Your task to perform on an android device: Open Yahoo.com Image 0: 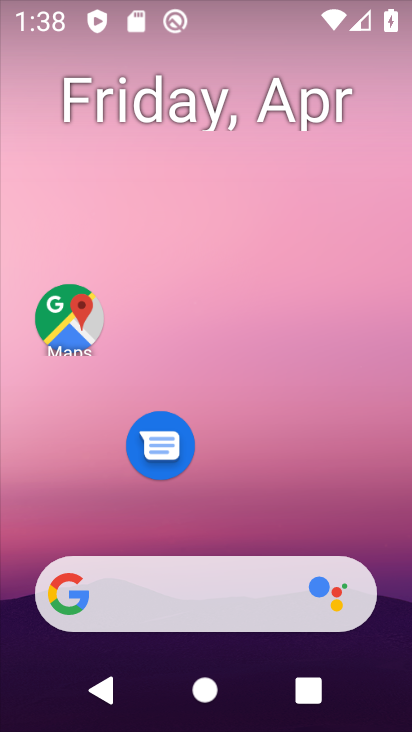
Step 0: drag from (258, 522) to (249, 103)
Your task to perform on an android device: Open Yahoo.com Image 1: 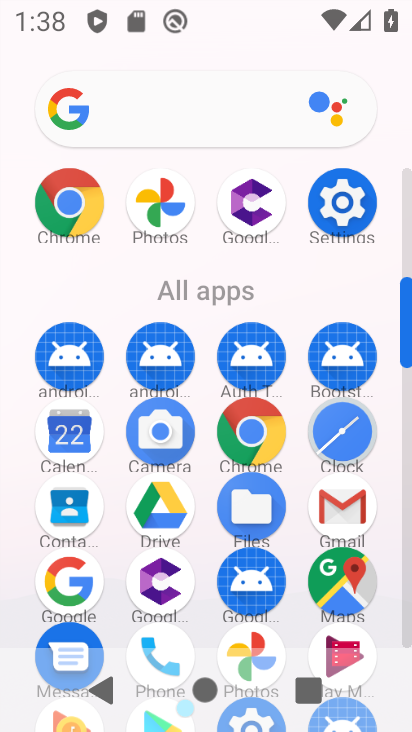
Step 1: click (64, 208)
Your task to perform on an android device: Open Yahoo.com Image 2: 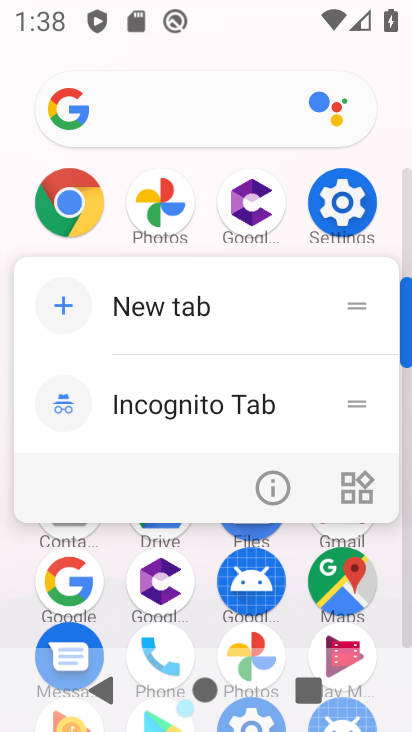
Step 2: click (64, 211)
Your task to perform on an android device: Open Yahoo.com Image 3: 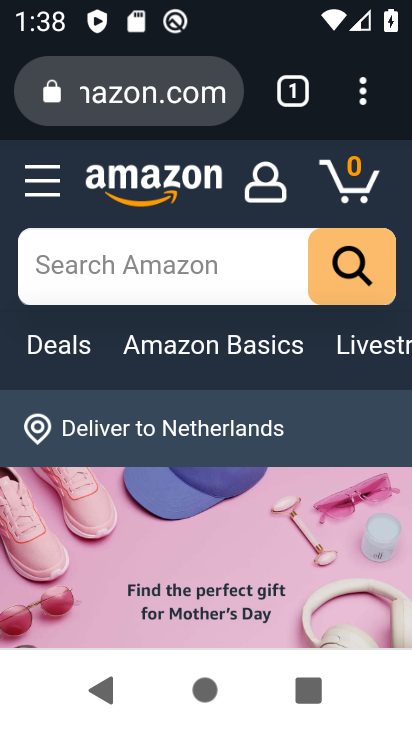
Step 3: click (118, 88)
Your task to perform on an android device: Open Yahoo.com Image 4: 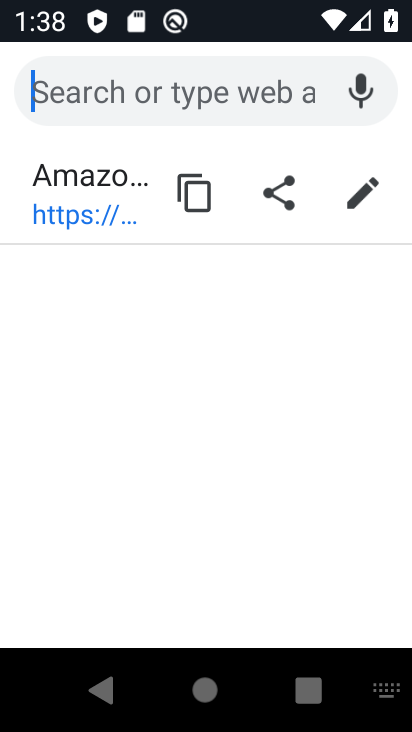
Step 4: type "yahoo.com"
Your task to perform on an android device: Open Yahoo.com Image 5: 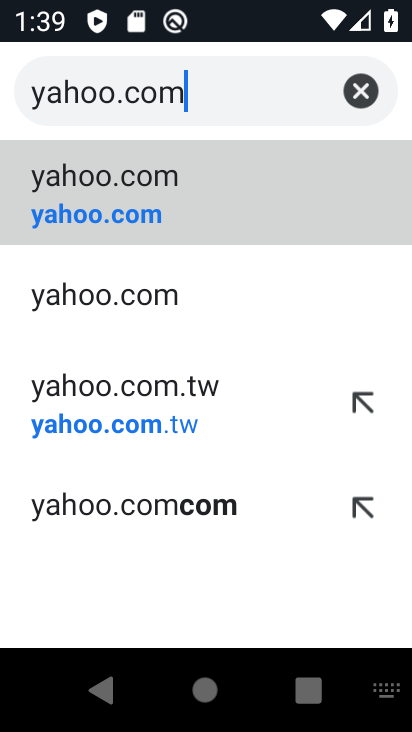
Step 5: click (99, 190)
Your task to perform on an android device: Open Yahoo.com Image 6: 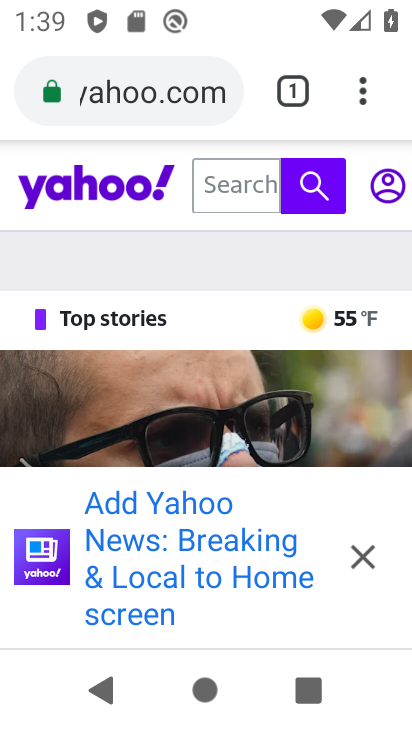
Step 6: task complete